Your task to perform on an android device: Open privacy settings Image 0: 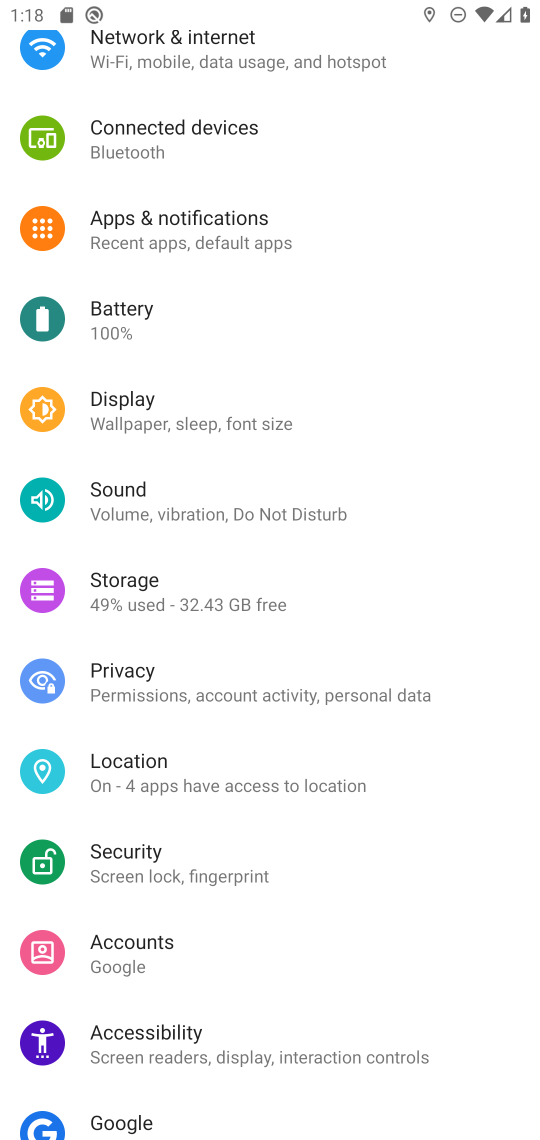
Step 0: press home button
Your task to perform on an android device: Open privacy settings Image 1: 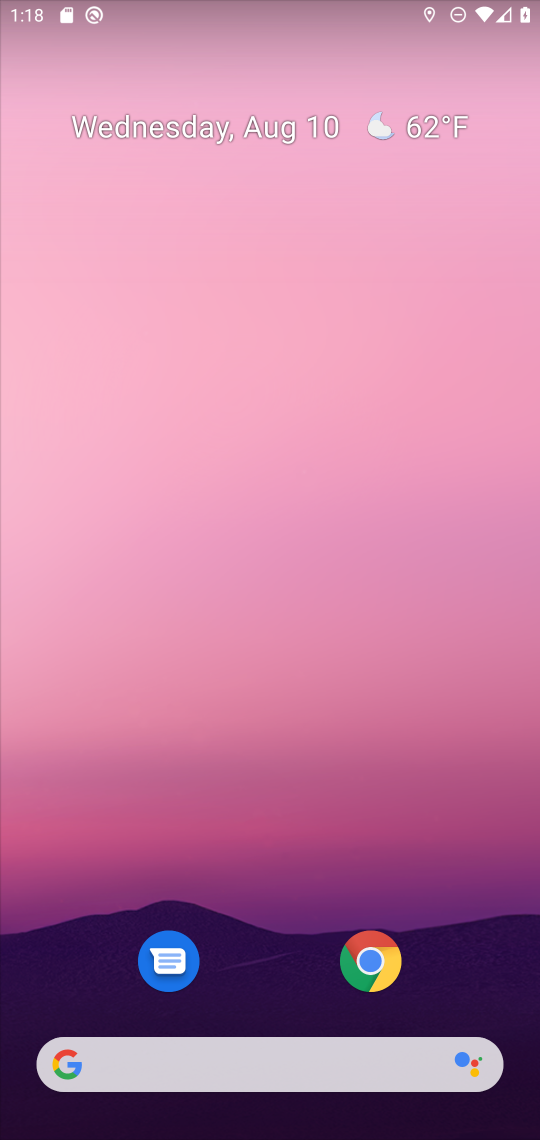
Step 1: drag from (251, 906) to (170, 146)
Your task to perform on an android device: Open privacy settings Image 2: 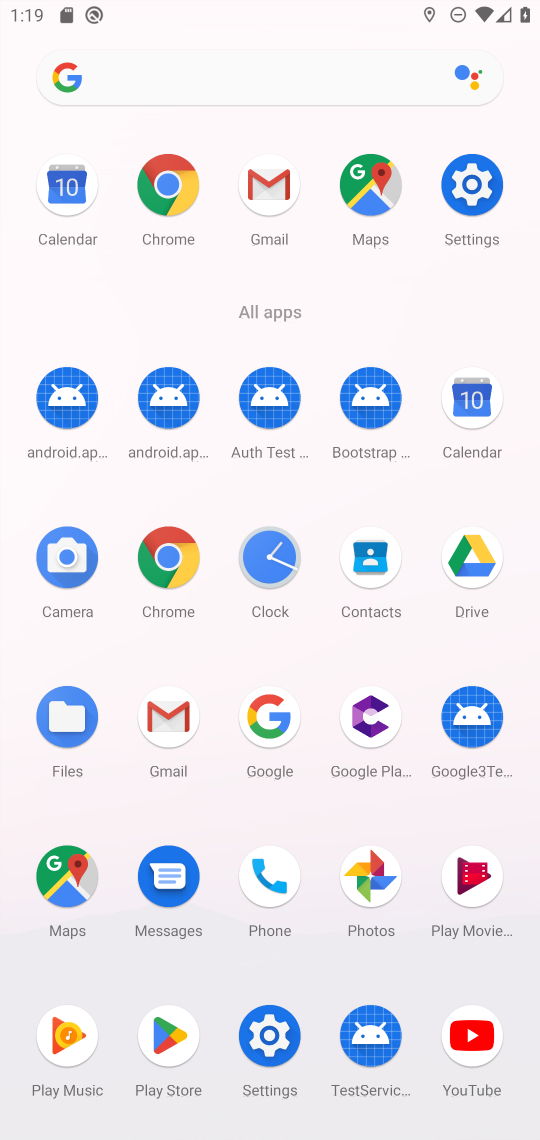
Step 2: click (476, 183)
Your task to perform on an android device: Open privacy settings Image 3: 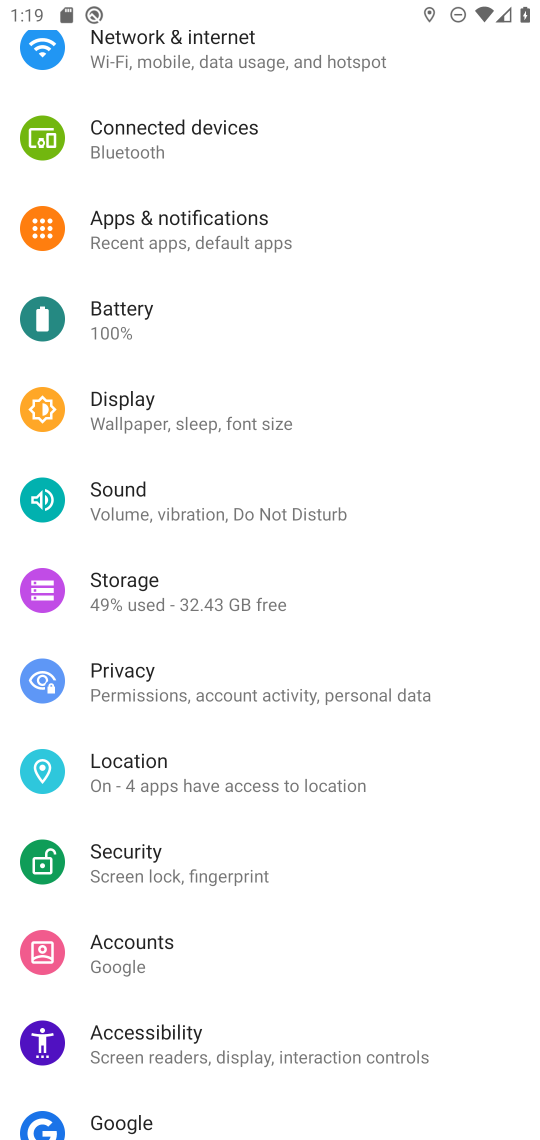
Step 3: click (132, 678)
Your task to perform on an android device: Open privacy settings Image 4: 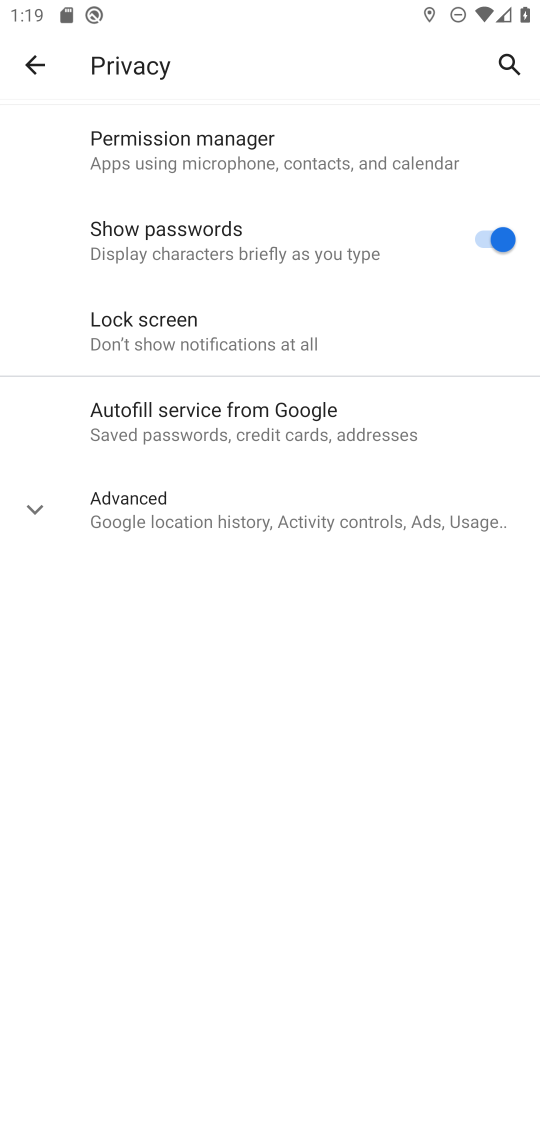
Step 4: task complete